Your task to perform on an android device: Open maps Image 0: 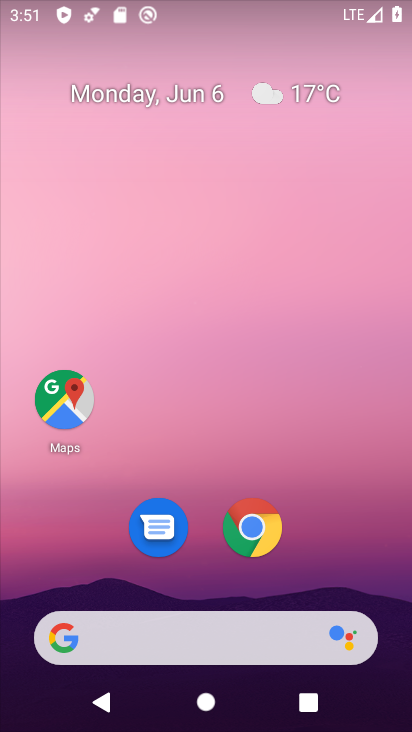
Step 0: click (46, 412)
Your task to perform on an android device: Open maps Image 1: 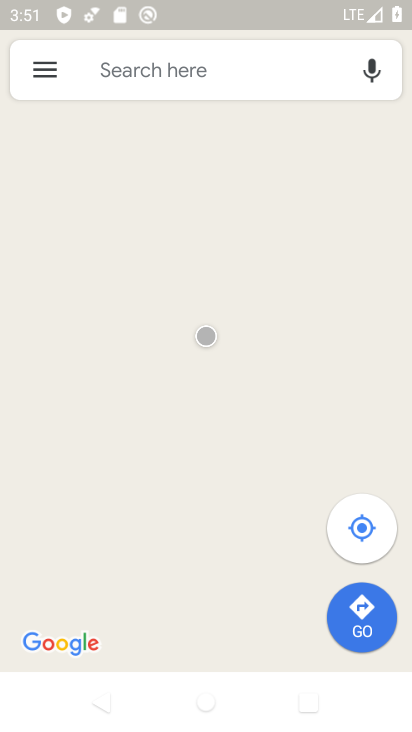
Step 1: task complete